Your task to perform on an android device: Open battery settings Image 0: 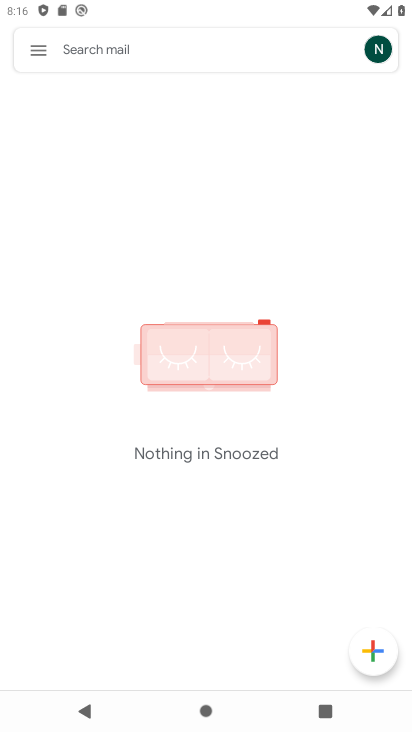
Step 0: press home button
Your task to perform on an android device: Open battery settings Image 1: 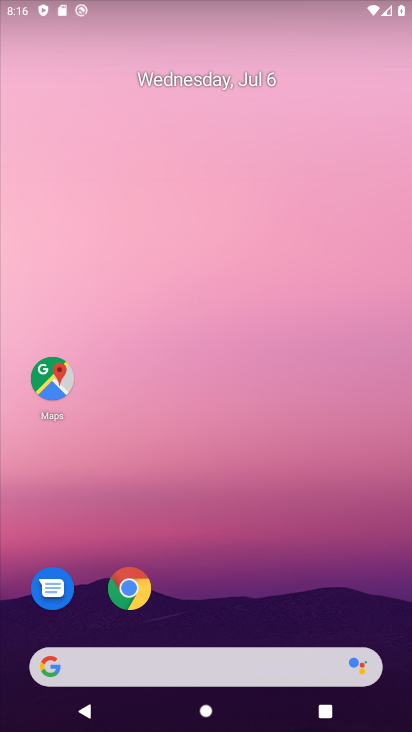
Step 1: drag from (184, 613) to (208, 169)
Your task to perform on an android device: Open battery settings Image 2: 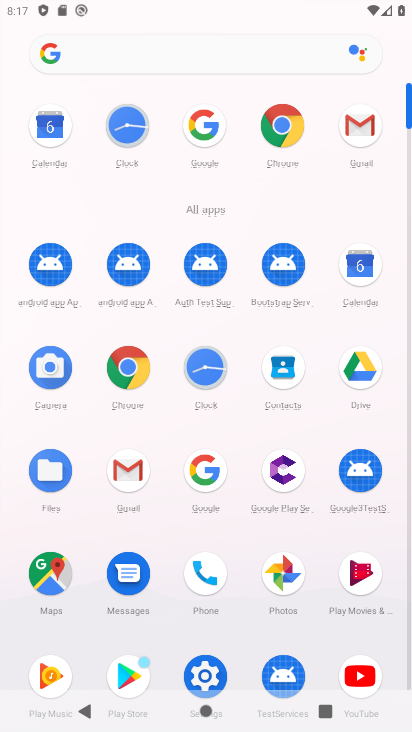
Step 2: click (201, 667)
Your task to perform on an android device: Open battery settings Image 3: 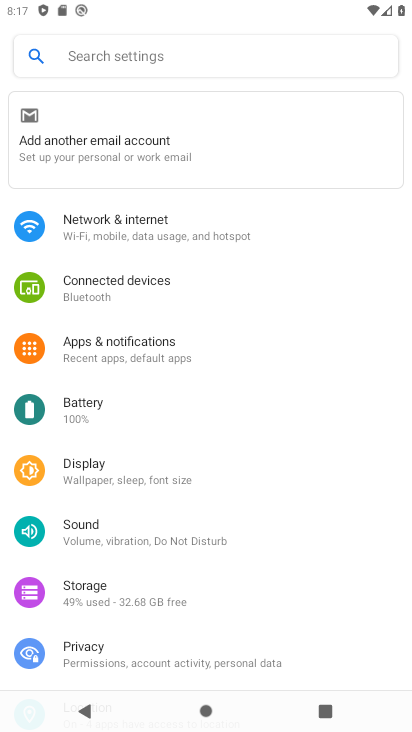
Step 3: click (100, 399)
Your task to perform on an android device: Open battery settings Image 4: 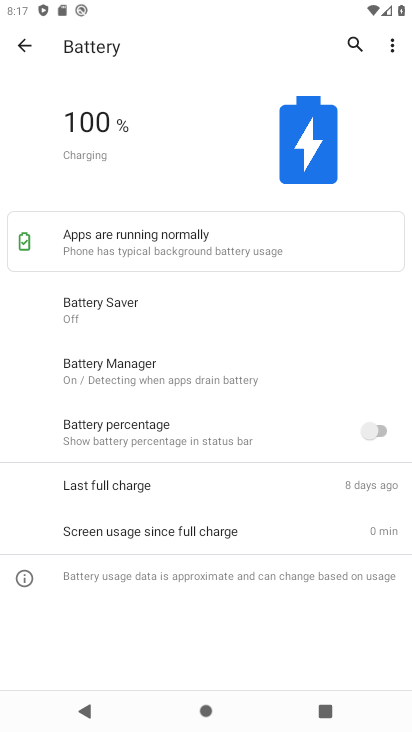
Step 4: task complete